Your task to perform on an android device: What's the weather going to be this weekend? Image 0: 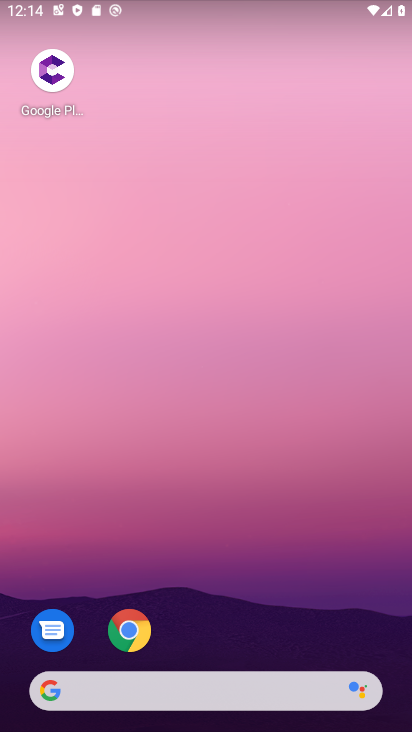
Step 0: drag from (5, 292) to (411, 308)
Your task to perform on an android device: What's the weather going to be this weekend? Image 1: 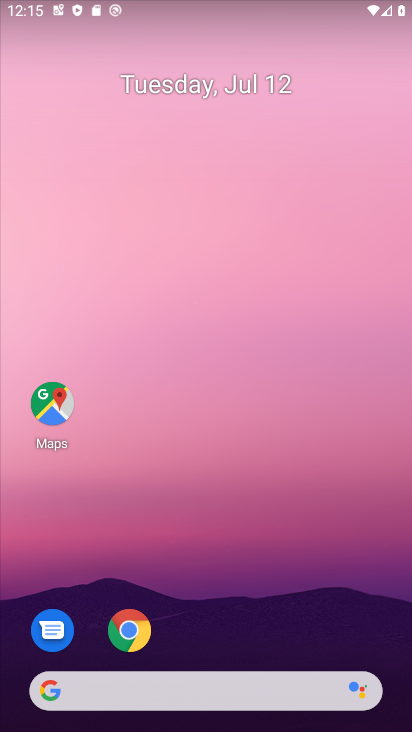
Step 1: drag from (71, 276) to (395, 346)
Your task to perform on an android device: What's the weather going to be this weekend? Image 2: 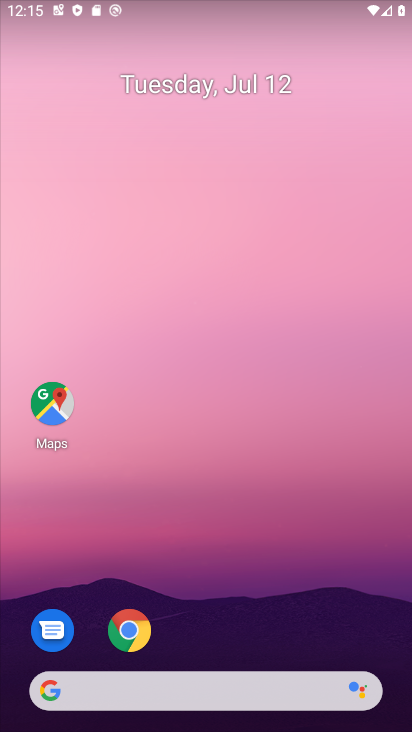
Step 2: press back button
Your task to perform on an android device: What's the weather going to be this weekend? Image 3: 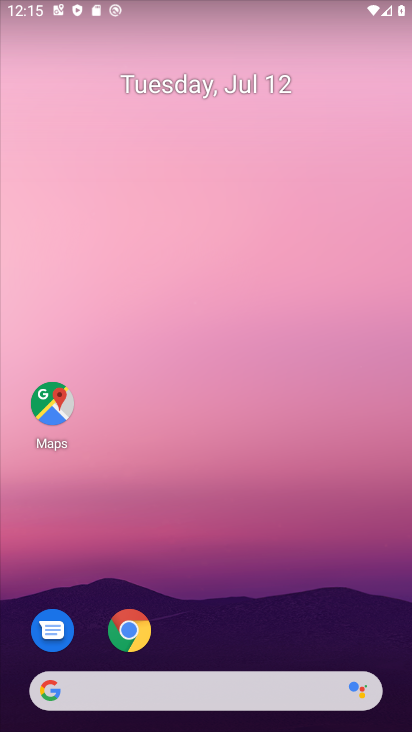
Step 3: click (186, 707)
Your task to perform on an android device: What's the weather going to be this weekend? Image 4: 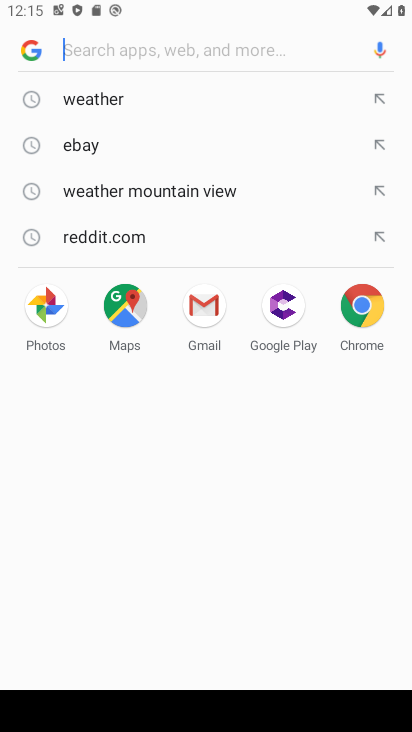
Step 4: type "weather for the weekend."
Your task to perform on an android device: What's the weather going to be this weekend? Image 5: 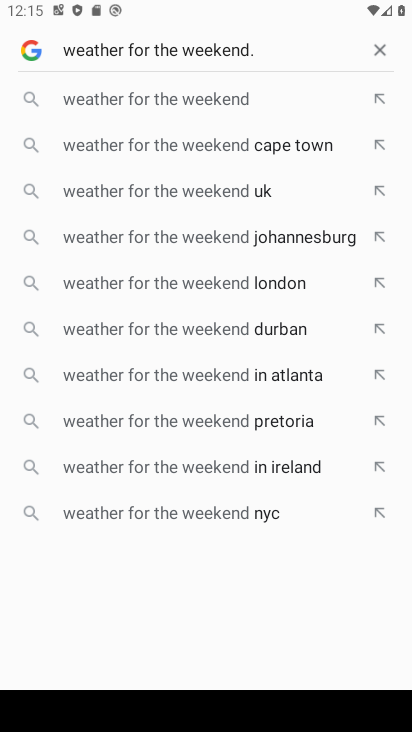
Step 5: click (116, 93)
Your task to perform on an android device: What's the weather going to be this weekend? Image 6: 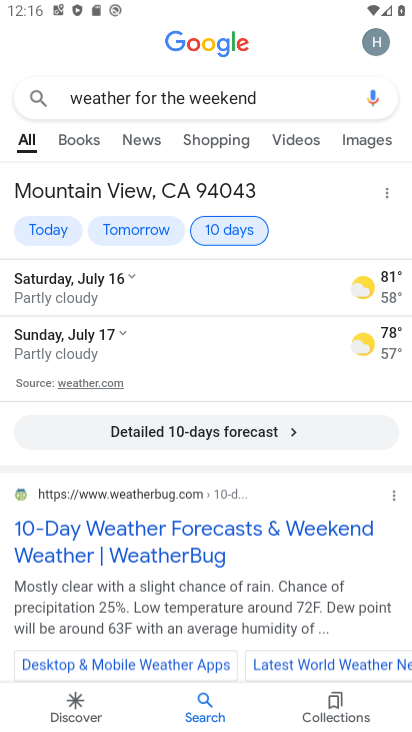
Step 6: click (241, 434)
Your task to perform on an android device: What's the weather going to be this weekend? Image 7: 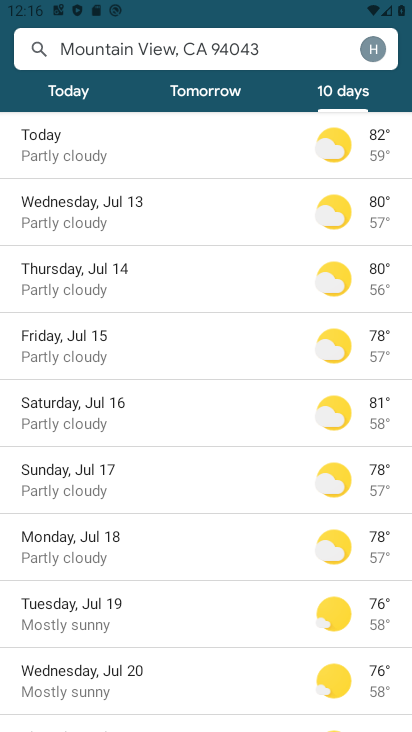
Step 7: task complete